Your task to perform on an android device: turn off sleep mode Image 0: 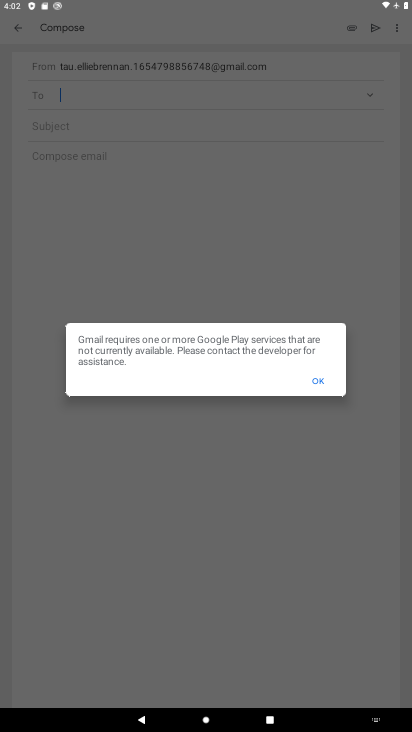
Step 0: press home button
Your task to perform on an android device: turn off sleep mode Image 1: 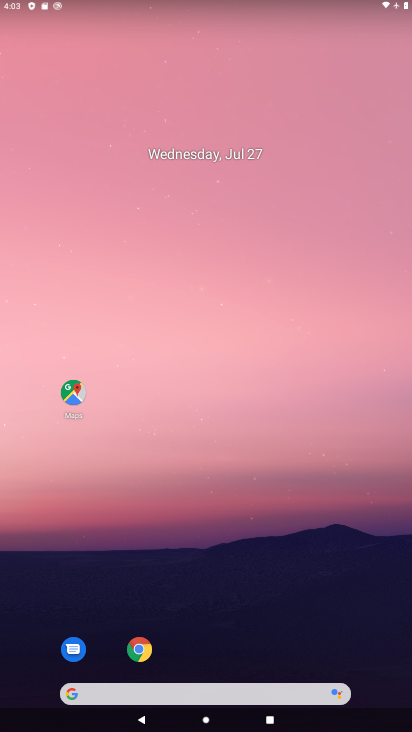
Step 1: drag from (371, 652) to (264, 183)
Your task to perform on an android device: turn off sleep mode Image 2: 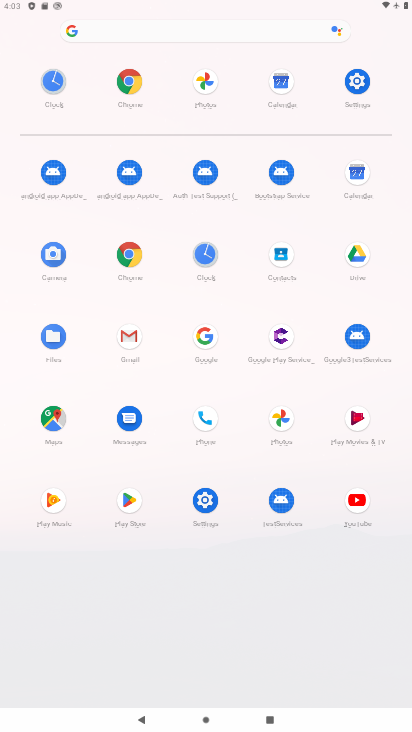
Step 2: click (368, 80)
Your task to perform on an android device: turn off sleep mode Image 3: 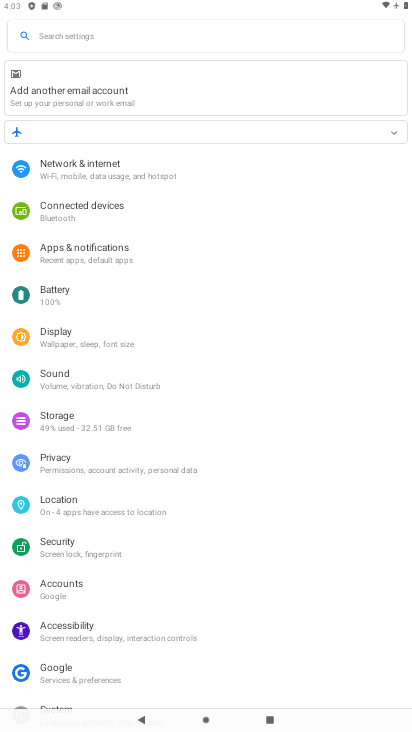
Step 3: click (114, 340)
Your task to perform on an android device: turn off sleep mode Image 4: 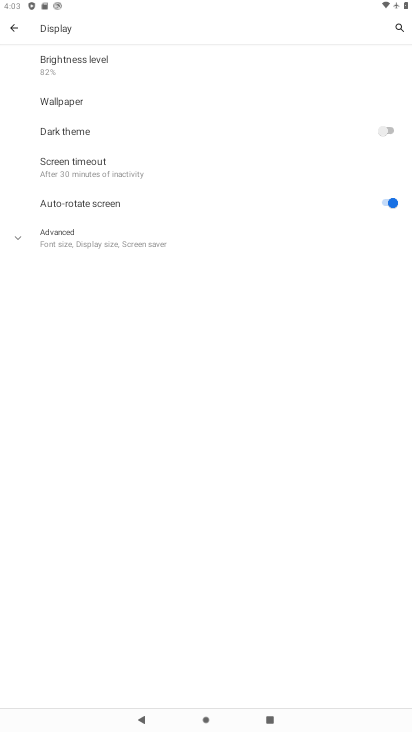
Step 4: click (249, 228)
Your task to perform on an android device: turn off sleep mode Image 5: 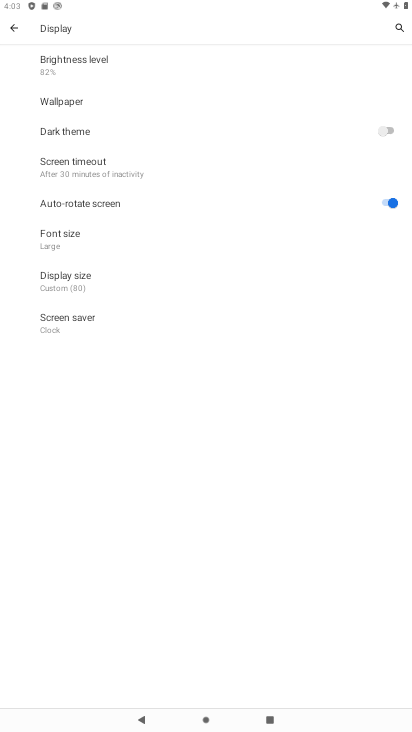
Step 5: task complete